Your task to perform on an android device: choose inbox layout in the gmail app Image 0: 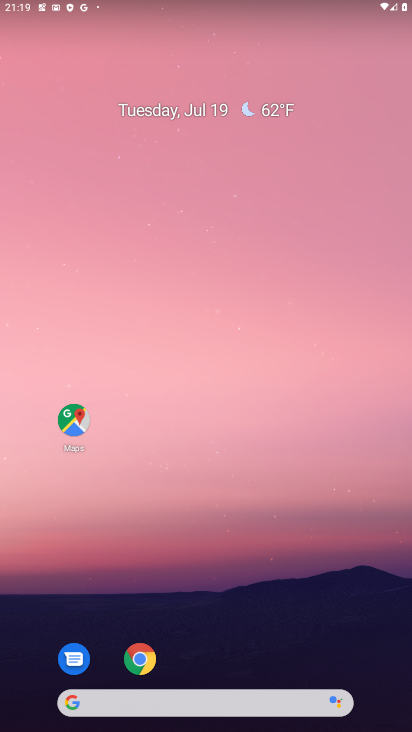
Step 0: press home button
Your task to perform on an android device: choose inbox layout in the gmail app Image 1: 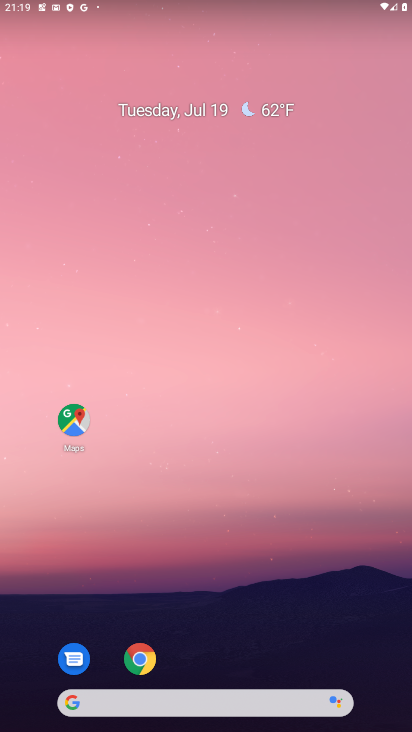
Step 1: drag from (265, 648) to (238, 198)
Your task to perform on an android device: choose inbox layout in the gmail app Image 2: 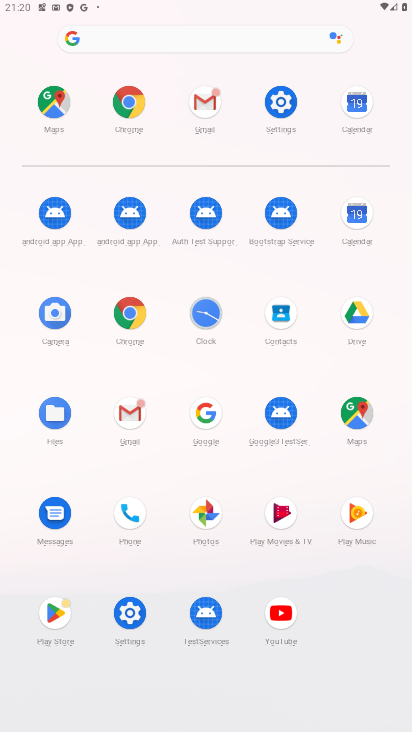
Step 2: click (132, 442)
Your task to perform on an android device: choose inbox layout in the gmail app Image 3: 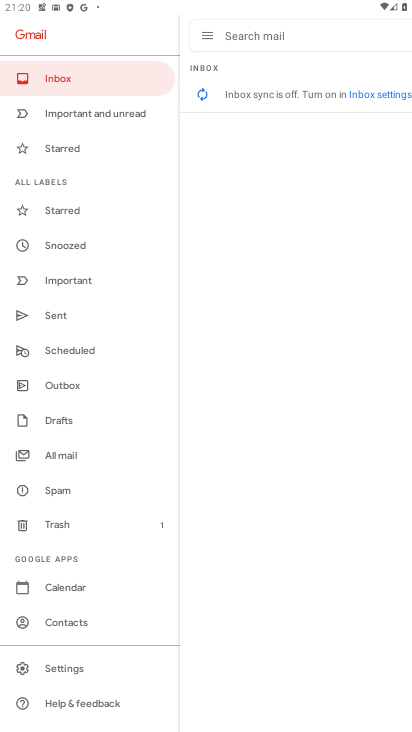
Step 3: click (69, 671)
Your task to perform on an android device: choose inbox layout in the gmail app Image 4: 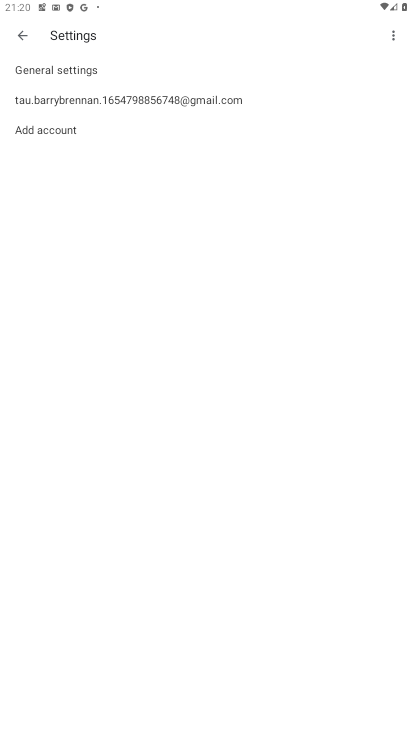
Step 4: click (87, 109)
Your task to perform on an android device: choose inbox layout in the gmail app Image 5: 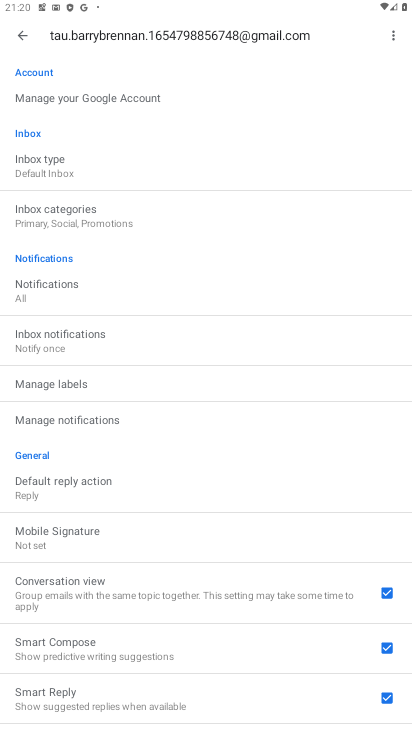
Step 5: click (61, 162)
Your task to perform on an android device: choose inbox layout in the gmail app Image 6: 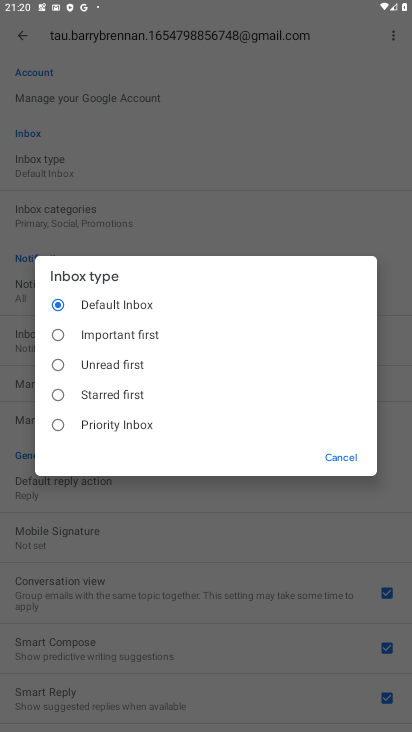
Step 6: click (139, 405)
Your task to perform on an android device: choose inbox layout in the gmail app Image 7: 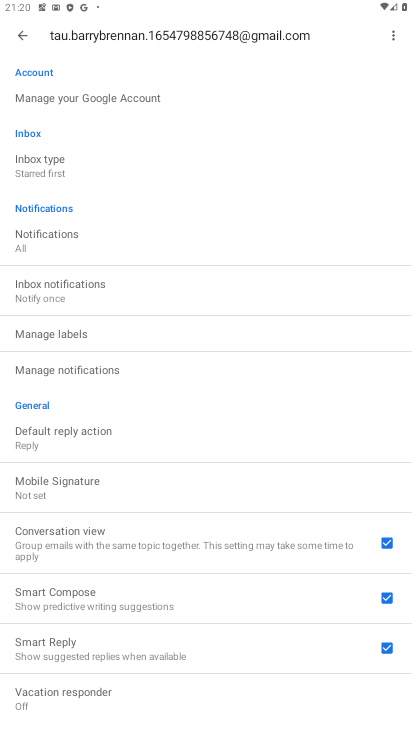
Step 7: task complete